Your task to perform on an android device: turn off data saver in the chrome app Image 0: 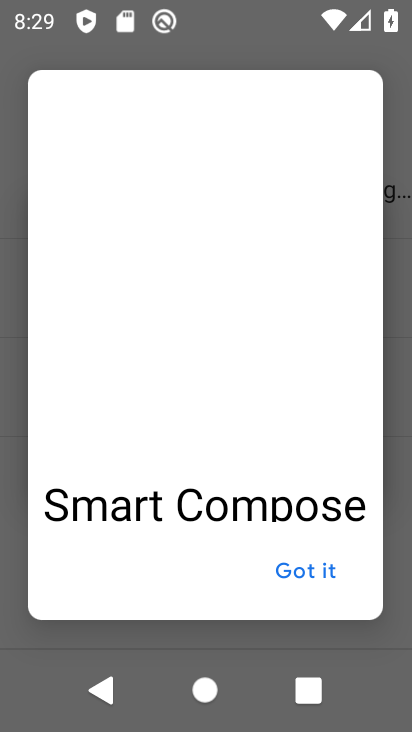
Step 0: press home button
Your task to perform on an android device: turn off data saver in the chrome app Image 1: 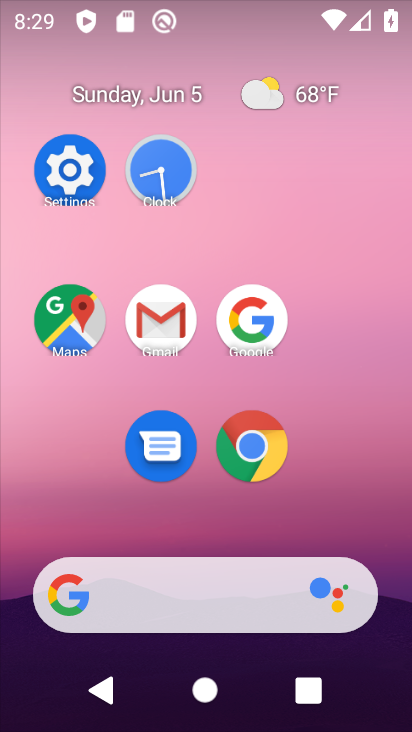
Step 1: click (235, 453)
Your task to perform on an android device: turn off data saver in the chrome app Image 2: 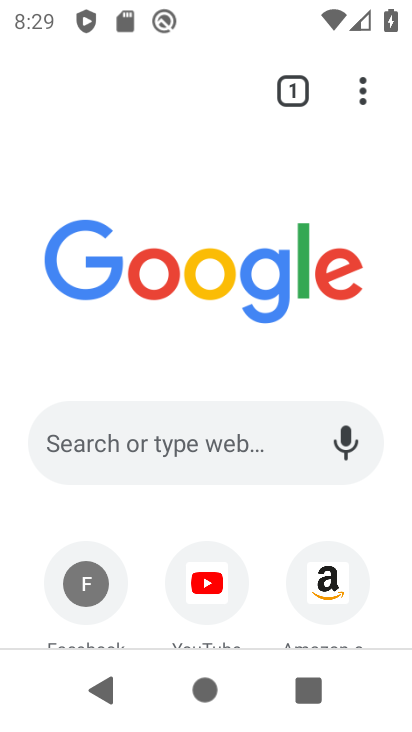
Step 2: click (378, 75)
Your task to perform on an android device: turn off data saver in the chrome app Image 3: 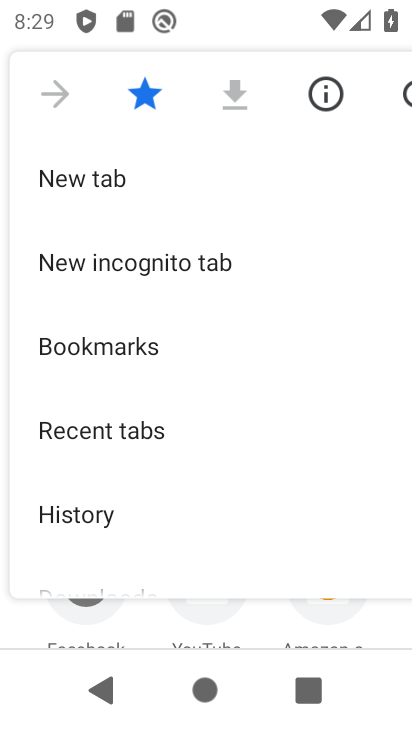
Step 3: drag from (272, 505) to (306, 134)
Your task to perform on an android device: turn off data saver in the chrome app Image 4: 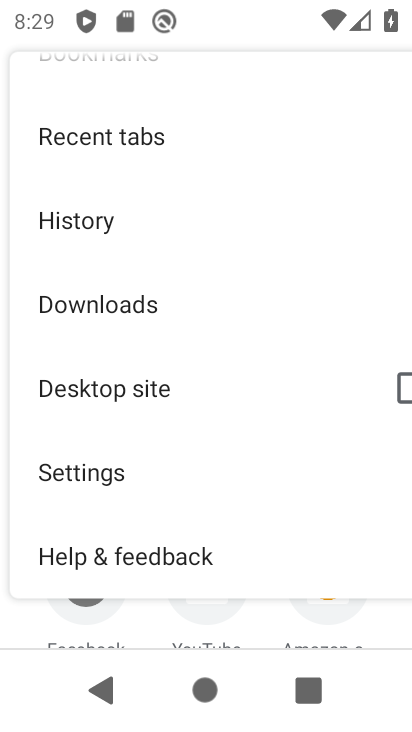
Step 4: click (170, 497)
Your task to perform on an android device: turn off data saver in the chrome app Image 5: 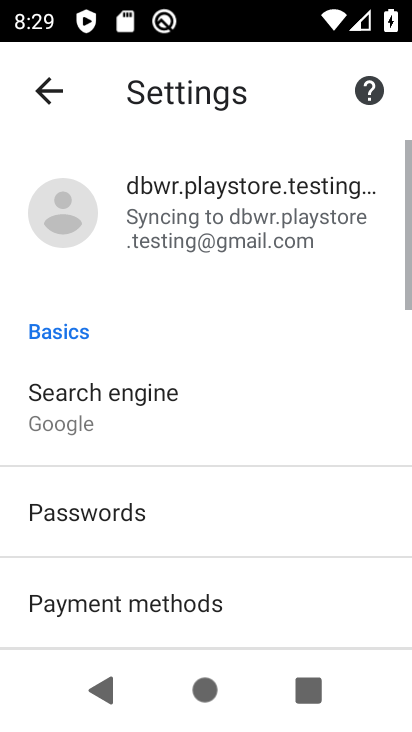
Step 5: drag from (170, 497) to (234, 184)
Your task to perform on an android device: turn off data saver in the chrome app Image 6: 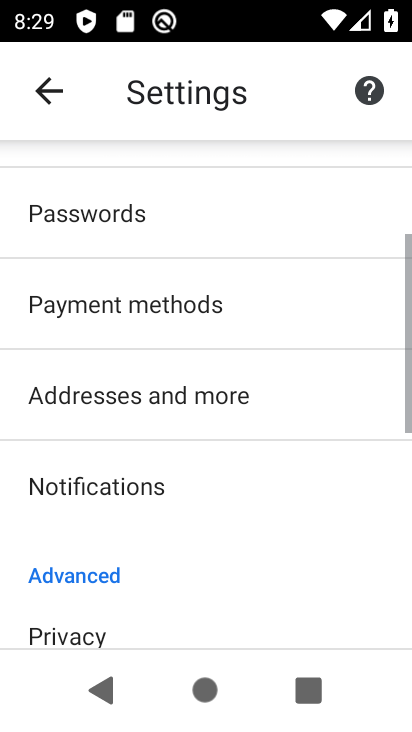
Step 6: drag from (200, 546) to (252, 245)
Your task to perform on an android device: turn off data saver in the chrome app Image 7: 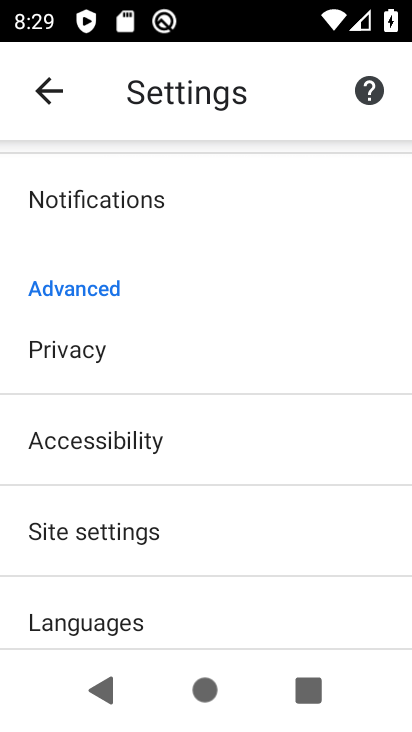
Step 7: drag from (221, 555) to (255, 259)
Your task to perform on an android device: turn off data saver in the chrome app Image 8: 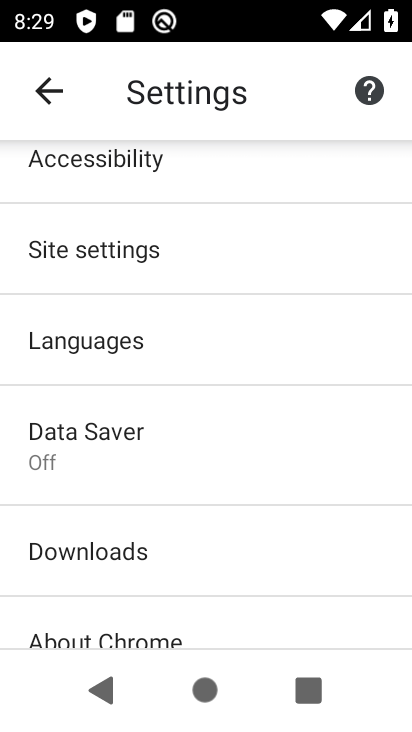
Step 8: click (231, 437)
Your task to perform on an android device: turn off data saver in the chrome app Image 9: 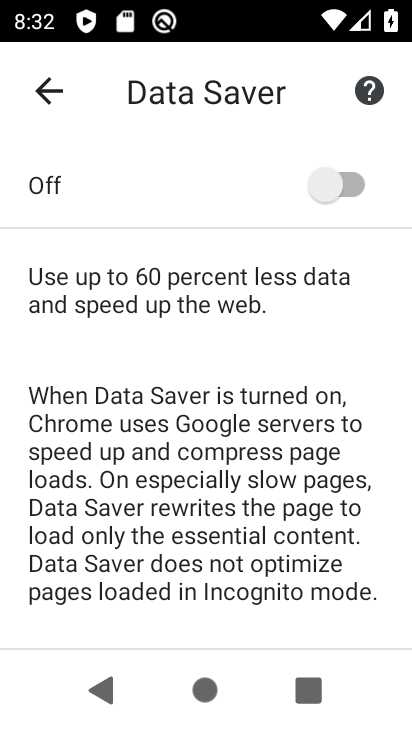
Step 9: task complete